Your task to perform on an android device: Show me recent news Image 0: 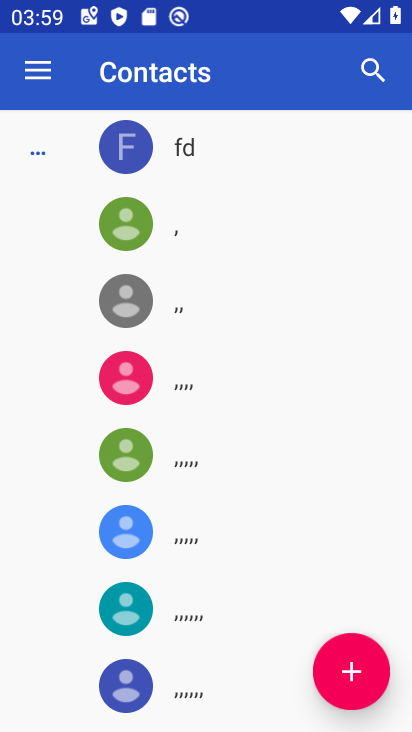
Step 0: press home button
Your task to perform on an android device: Show me recent news Image 1: 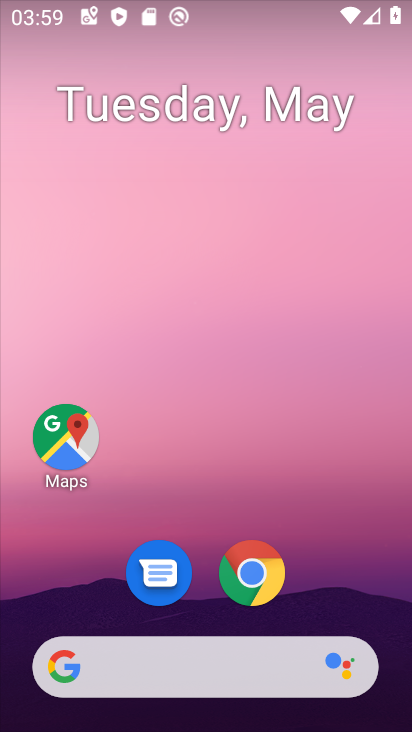
Step 1: click (172, 669)
Your task to perform on an android device: Show me recent news Image 2: 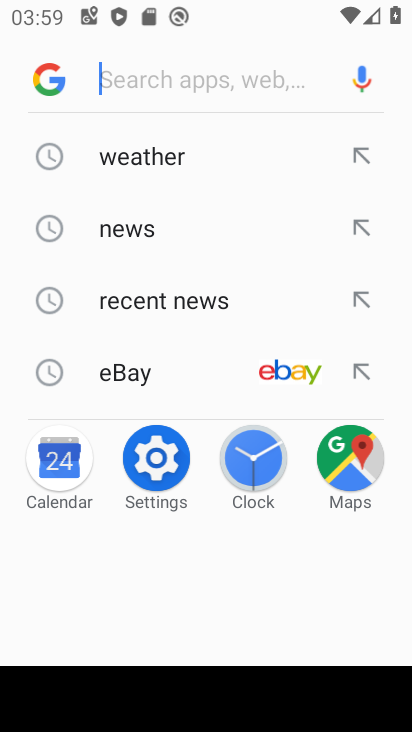
Step 2: click (152, 295)
Your task to perform on an android device: Show me recent news Image 3: 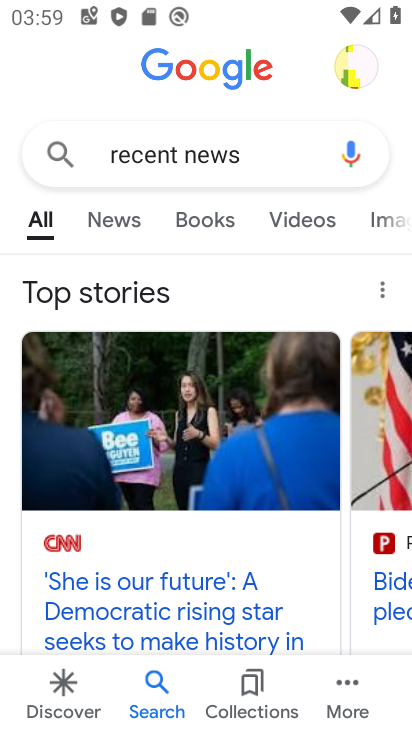
Step 3: task complete